Your task to perform on an android device: open sync settings in chrome Image 0: 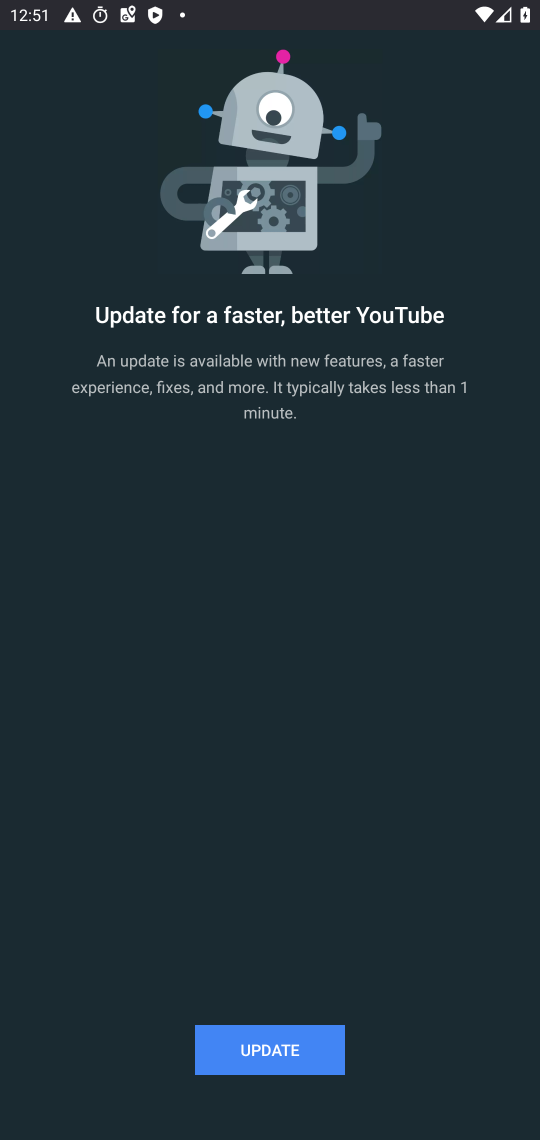
Step 0: press home button
Your task to perform on an android device: open sync settings in chrome Image 1: 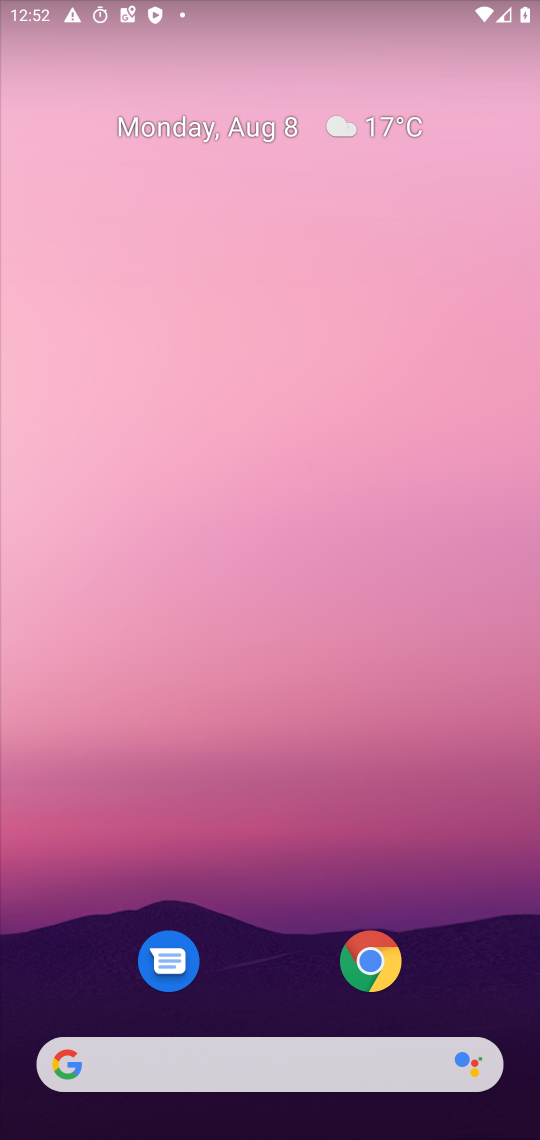
Step 1: drag from (306, 1044) to (249, 129)
Your task to perform on an android device: open sync settings in chrome Image 2: 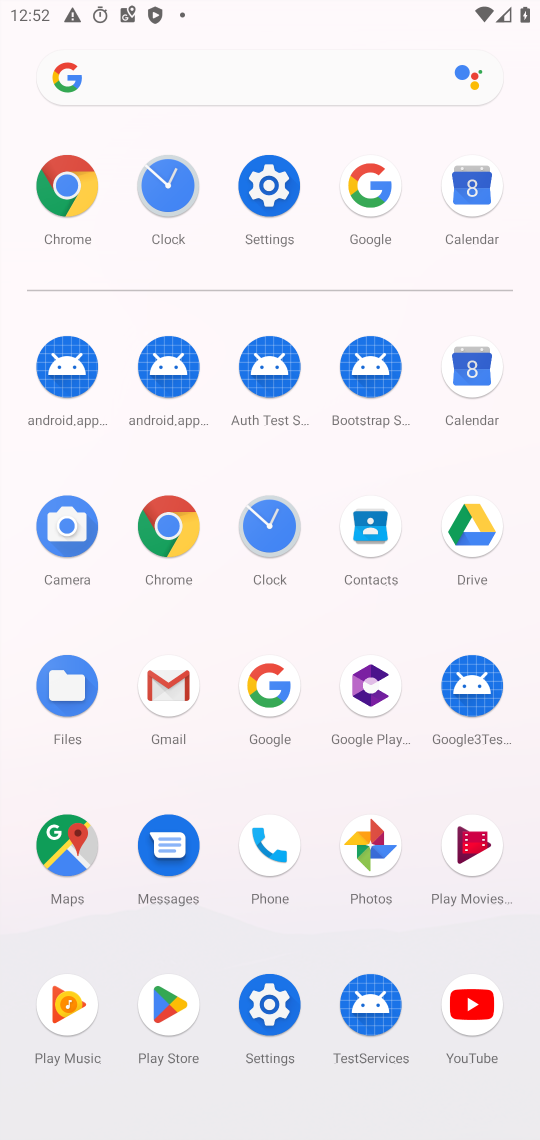
Step 2: click (156, 516)
Your task to perform on an android device: open sync settings in chrome Image 3: 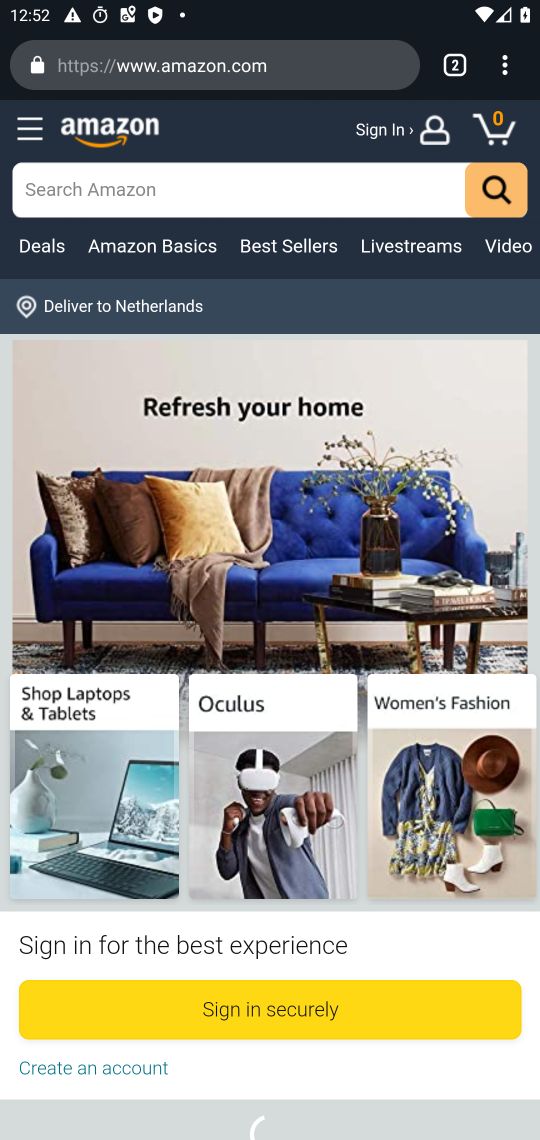
Step 3: click (497, 65)
Your task to perform on an android device: open sync settings in chrome Image 4: 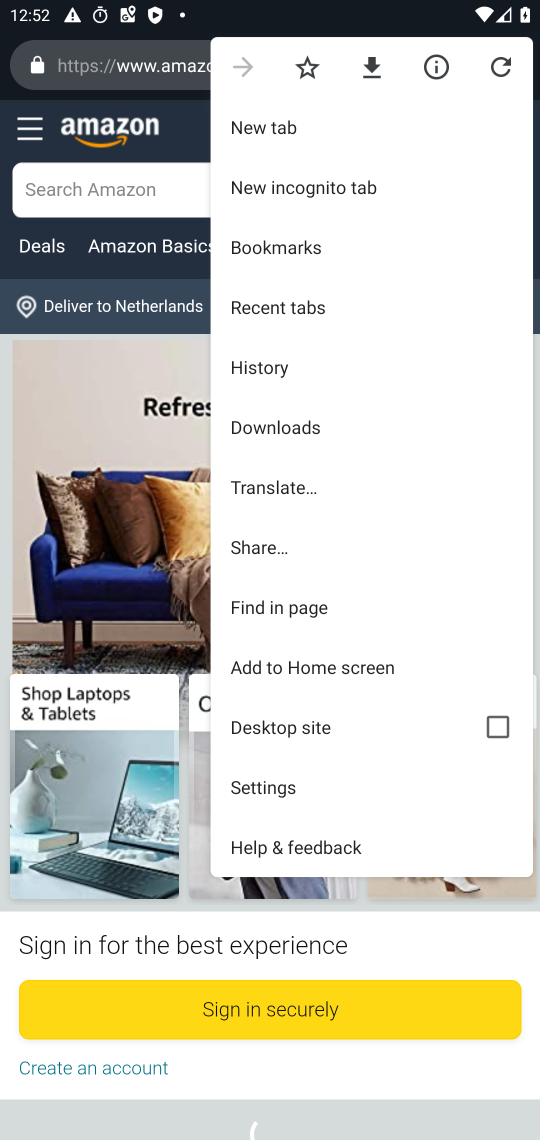
Step 4: click (301, 775)
Your task to perform on an android device: open sync settings in chrome Image 5: 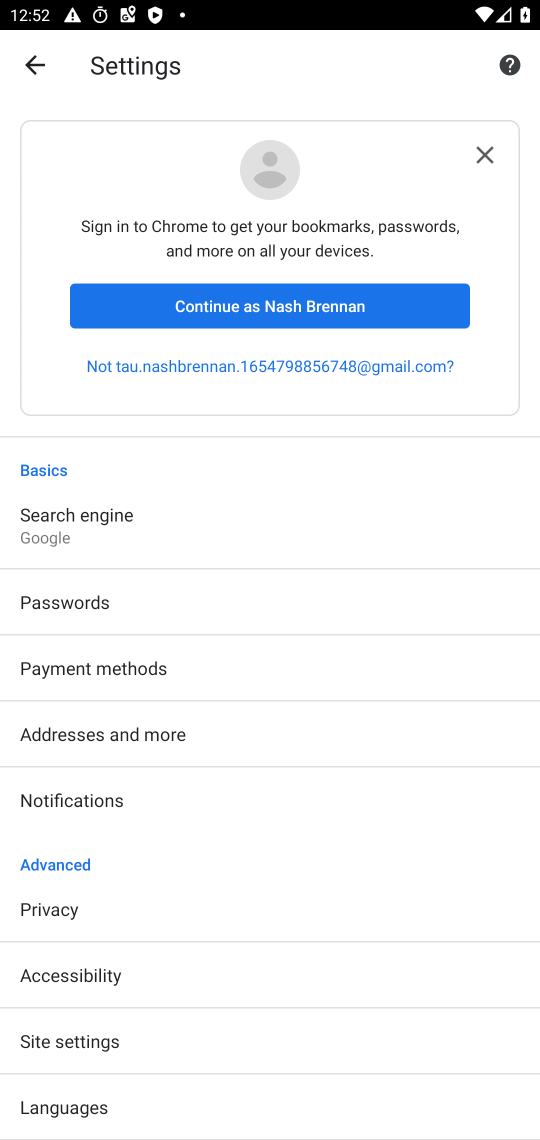
Step 5: click (112, 1045)
Your task to perform on an android device: open sync settings in chrome Image 6: 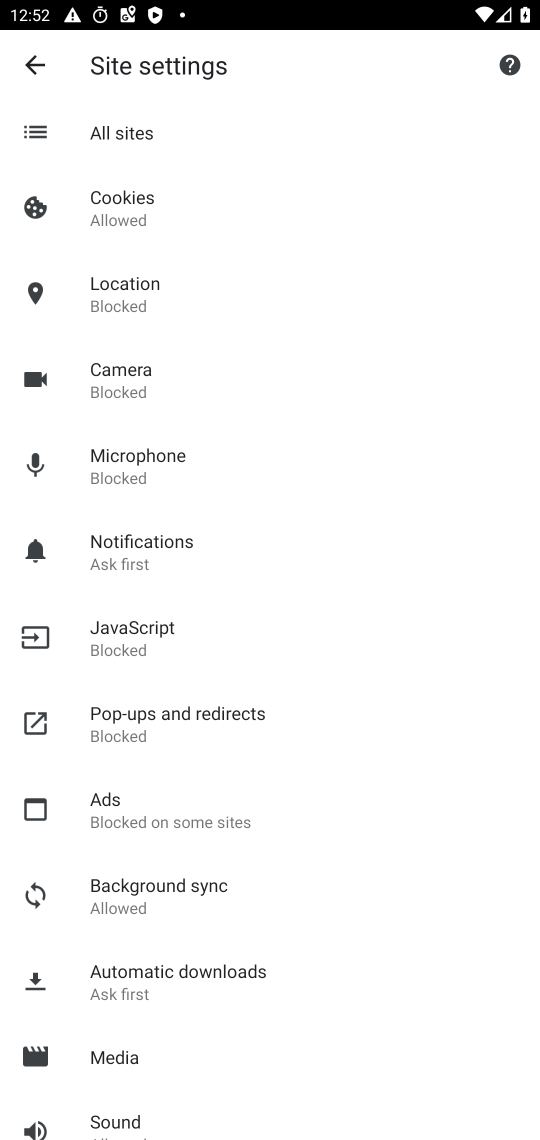
Step 6: click (205, 886)
Your task to perform on an android device: open sync settings in chrome Image 7: 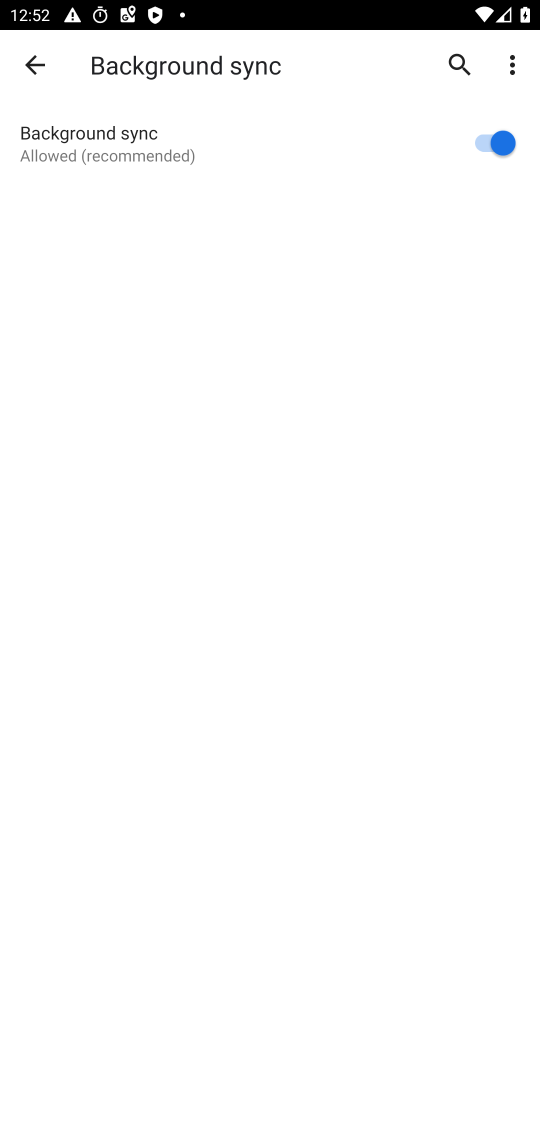
Step 7: task complete